Your task to perform on an android device: turn off airplane mode Image 0: 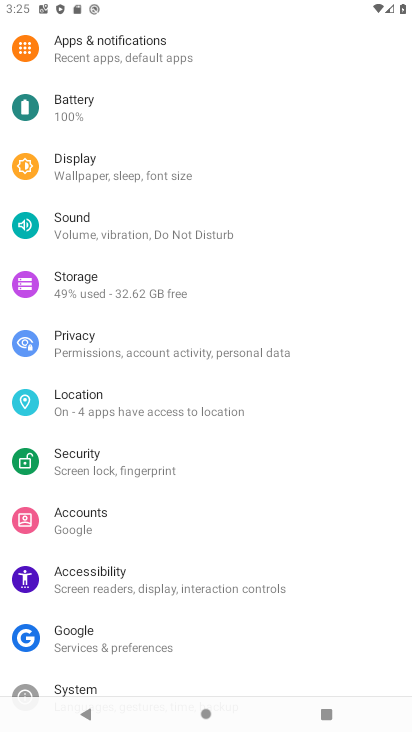
Step 0: press home button
Your task to perform on an android device: turn off airplane mode Image 1: 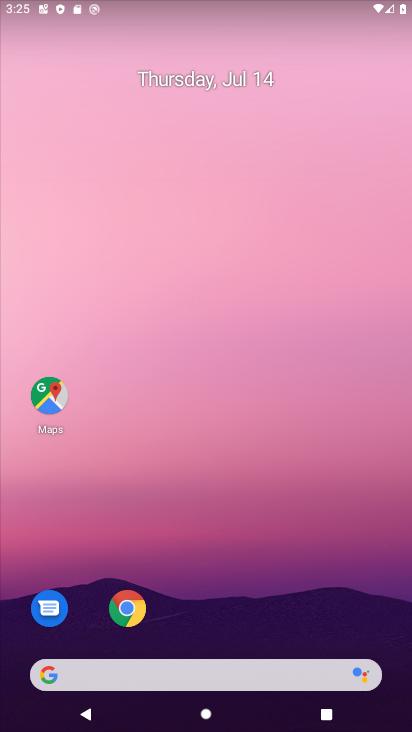
Step 1: task complete